Your task to perform on an android device: Search for vegetarian restaurants on Maps Image 0: 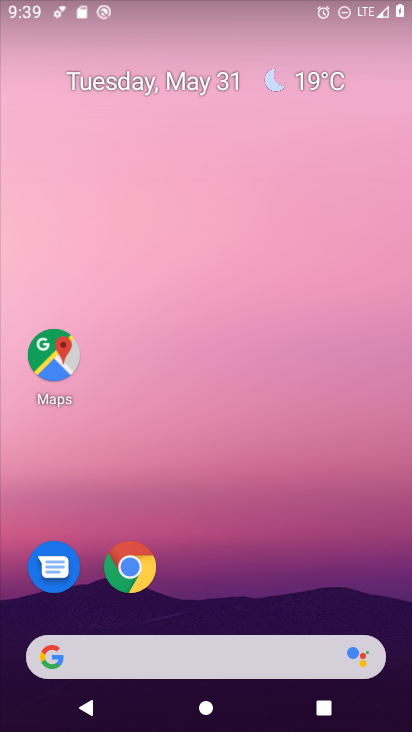
Step 0: click (56, 368)
Your task to perform on an android device: Search for vegetarian restaurants on Maps Image 1: 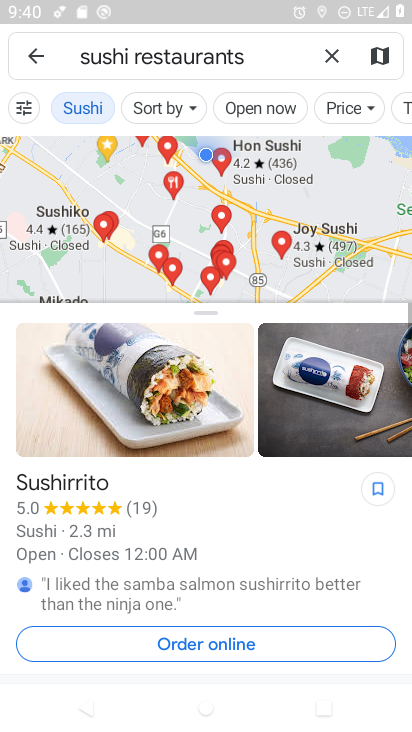
Step 1: click (343, 59)
Your task to perform on an android device: Search for vegetarian restaurants on Maps Image 2: 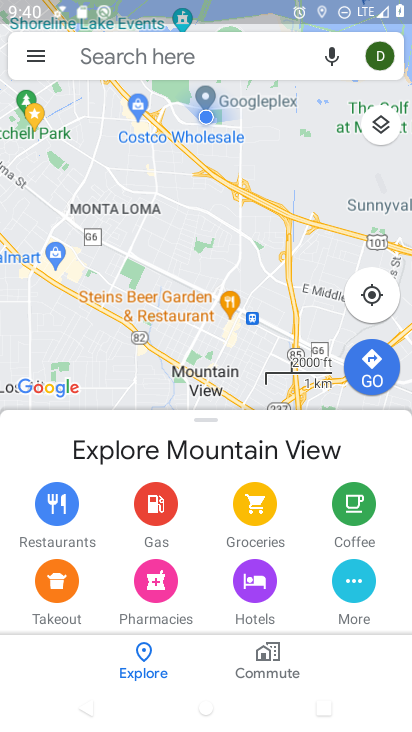
Step 2: click (210, 55)
Your task to perform on an android device: Search for vegetarian restaurants on Maps Image 3: 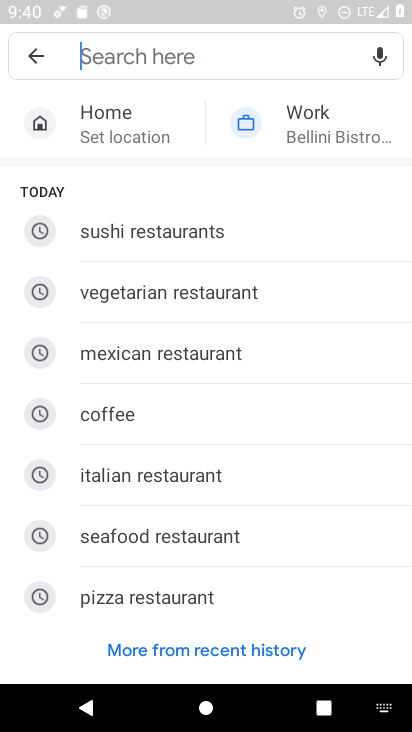
Step 3: click (150, 300)
Your task to perform on an android device: Search for vegetarian restaurants on Maps Image 4: 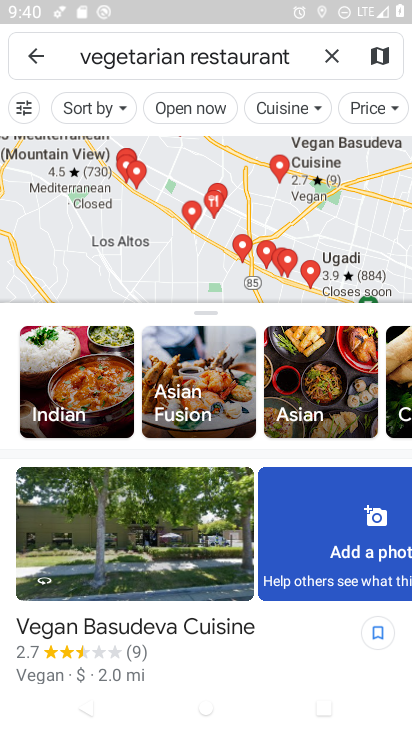
Step 4: task complete